Your task to perform on an android device: empty trash in the gmail app Image 0: 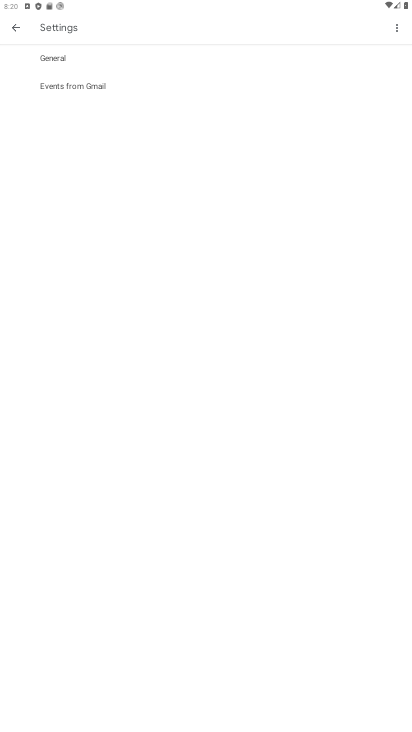
Step 0: press home button
Your task to perform on an android device: empty trash in the gmail app Image 1: 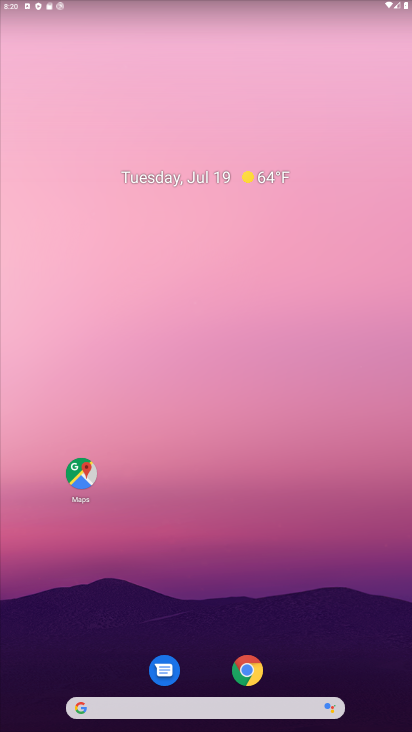
Step 1: drag from (274, 724) to (207, 111)
Your task to perform on an android device: empty trash in the gmail app Image 2: 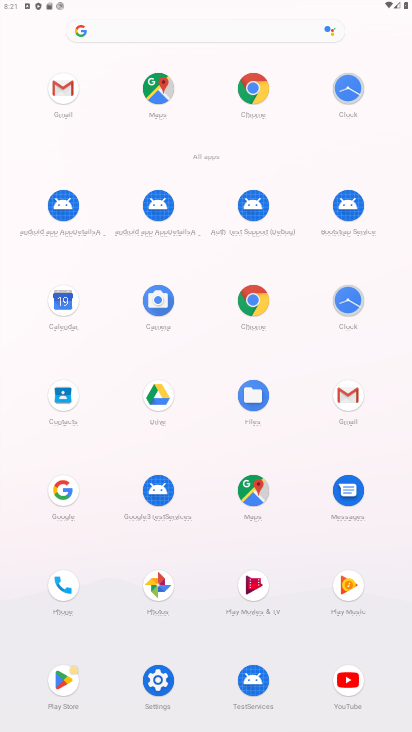
Step 2: click (62, 97)
Your task to perform on an android device: empty trash in the gmail app Image 3: 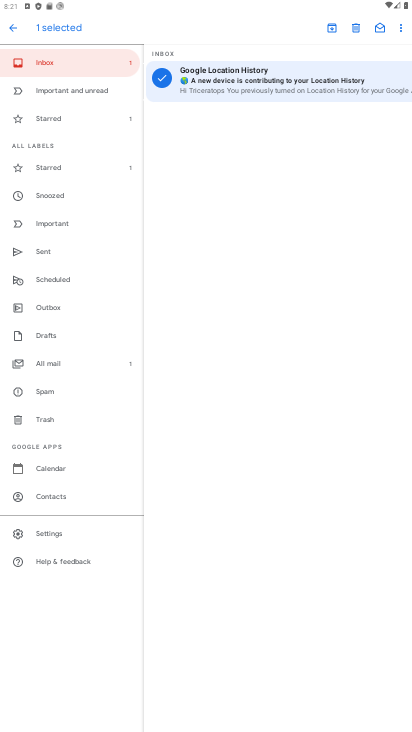
Step 3: click (55, 425)
Your task to perform on an android device: empty trash in the gmail app Image 4: 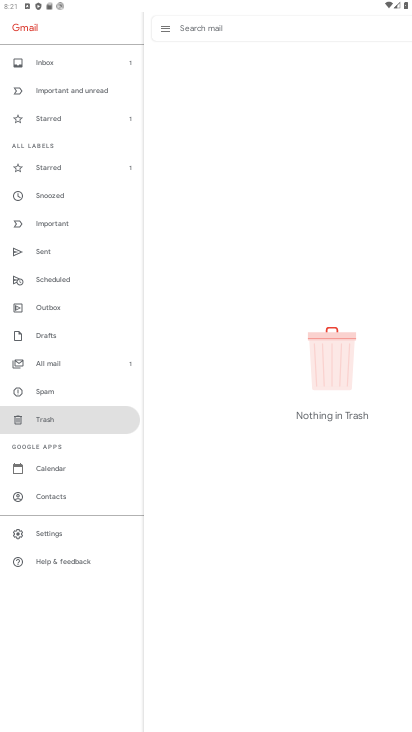
Step 4: task complete